Your task to perform on an android device: uninstall "PlayWell" Image 0: 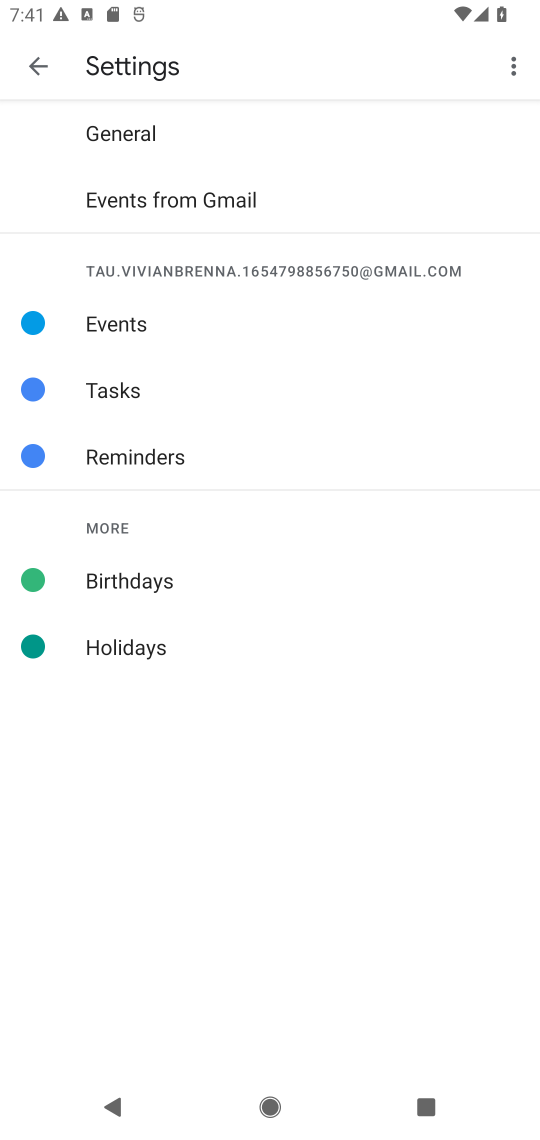
Step 0: press home button
Your task to perform on an android device: uninstall "PlayWell" Image 1: 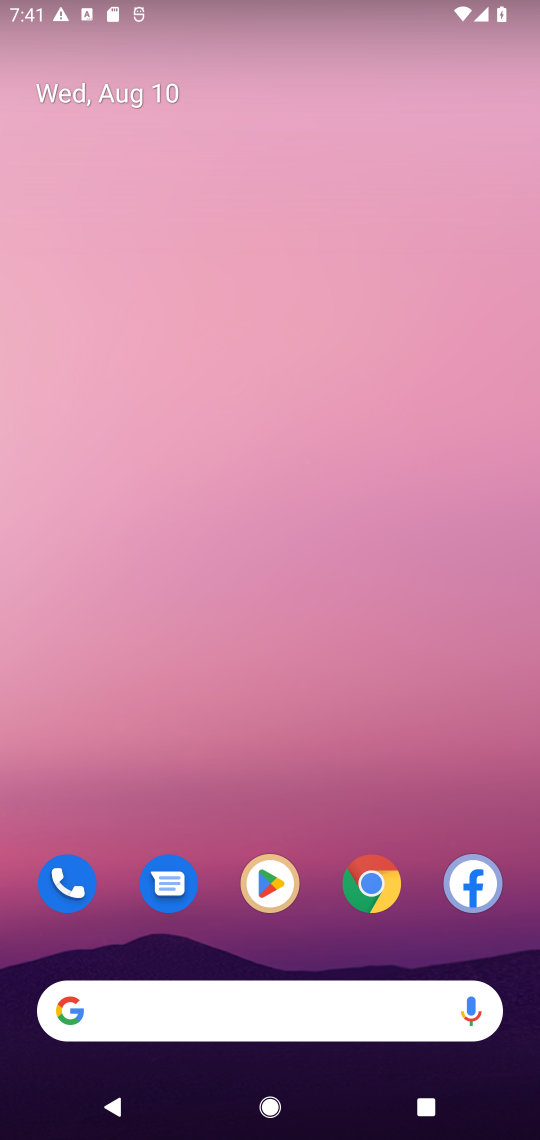
Step 1: drag from (321, 929) to (323, 46)
Your task to perform on an android device: uninstall "PlayWell" Image 2: 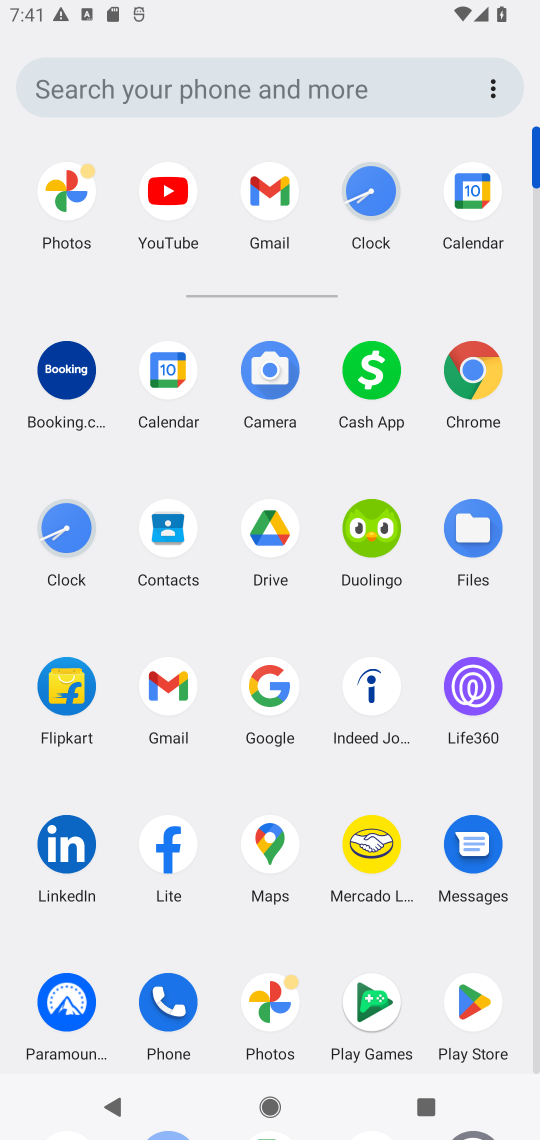
Step 2: click (467, 1008)
Your task to perform on an android device: uninstall "PlayWell" Image 3: 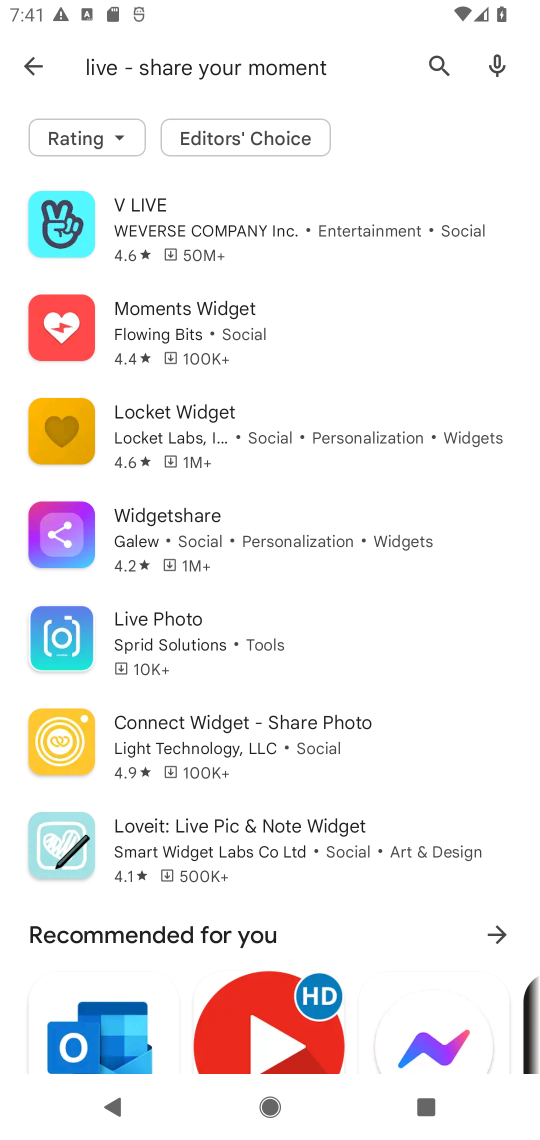
Step 3: click (439, 64)
Your task to perform on an android device: uninstall "PlayWell" Image 4: 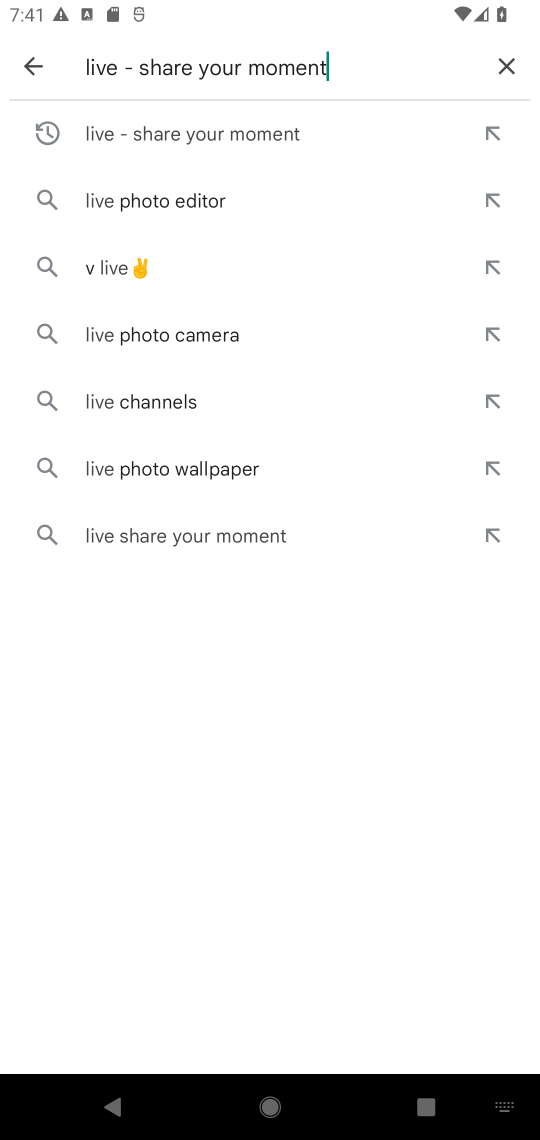
Step 4: click (508, 61)
Your task to perform on an android device: uninstall "PlayWell" Image 5: 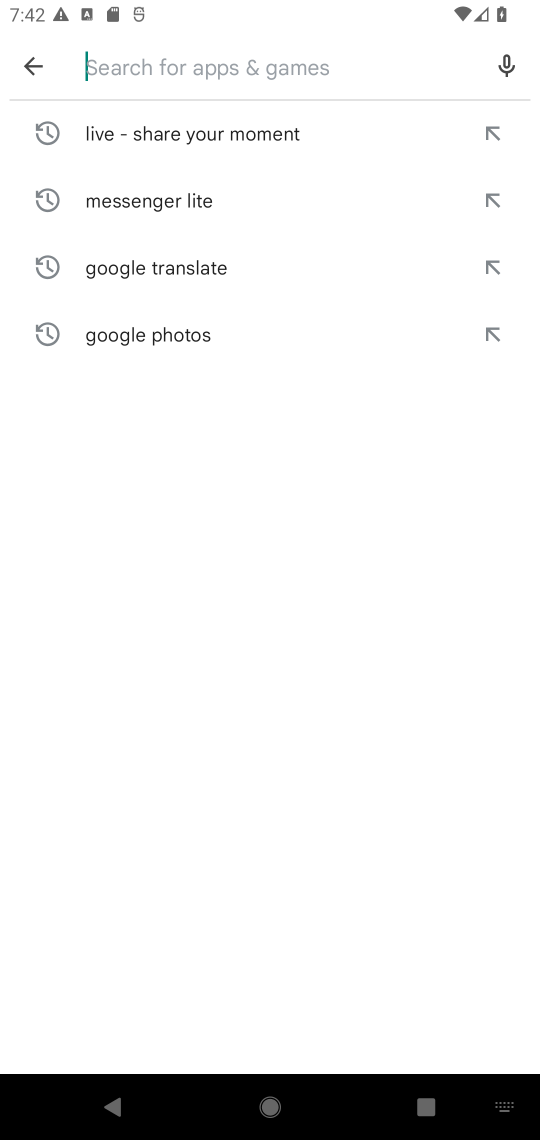
Step 5: type "PlayWell""
Your task to perform on an android device: uninstall "PlayWell" Image 6: 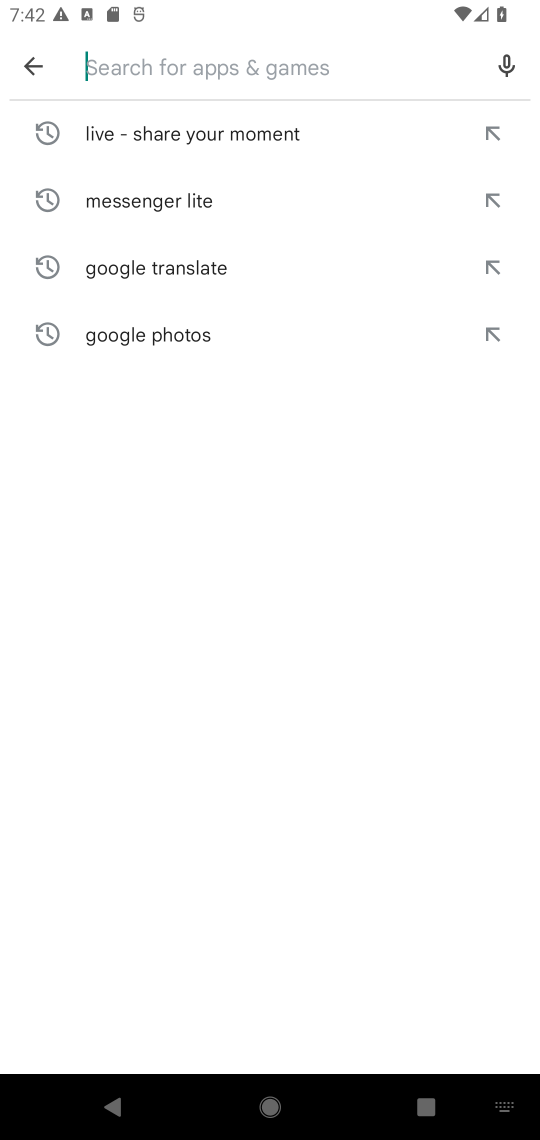
Step 6: type ""
Your task to perform on an android device: uninstall "PlayWell" Image 7: 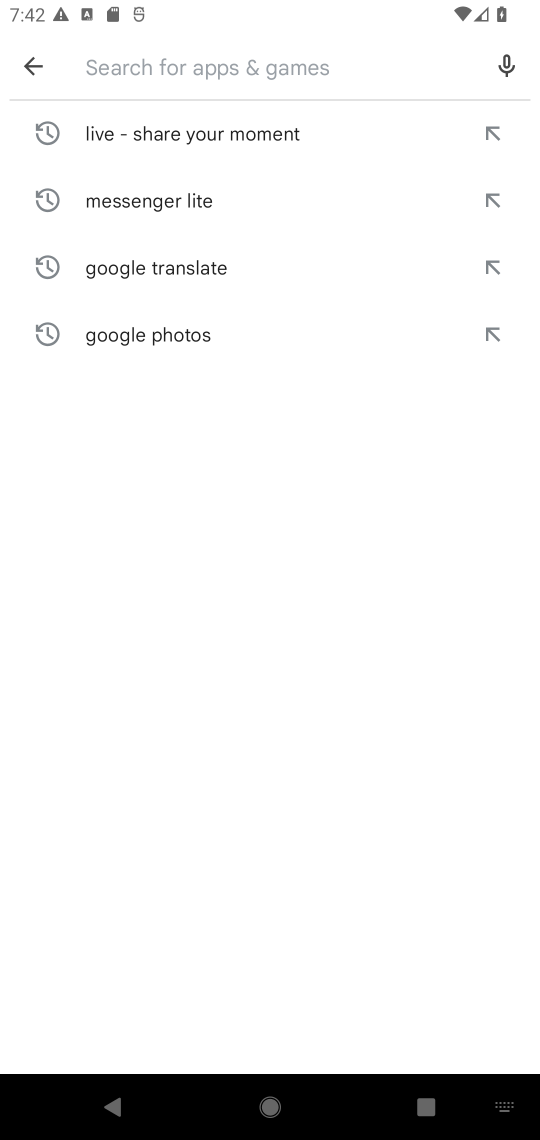
Step 7: type "PlayWell"
Your task to perform on an android device: uninstall "PlayWell" Image 8: 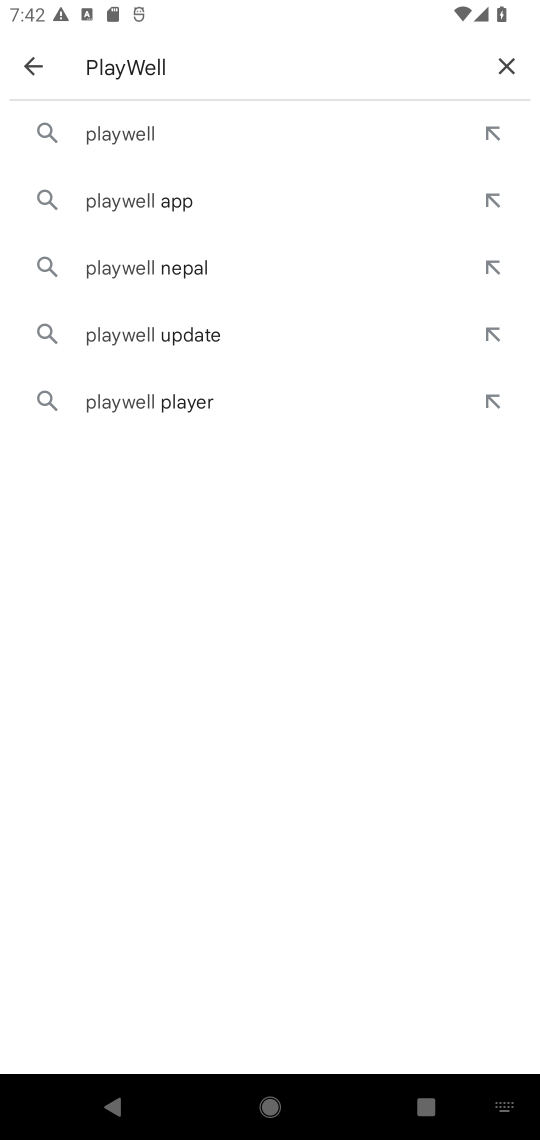
Step 8: click (120, 139)
Your task to perform on an android device: uninstall "PlayWell" Image 9: 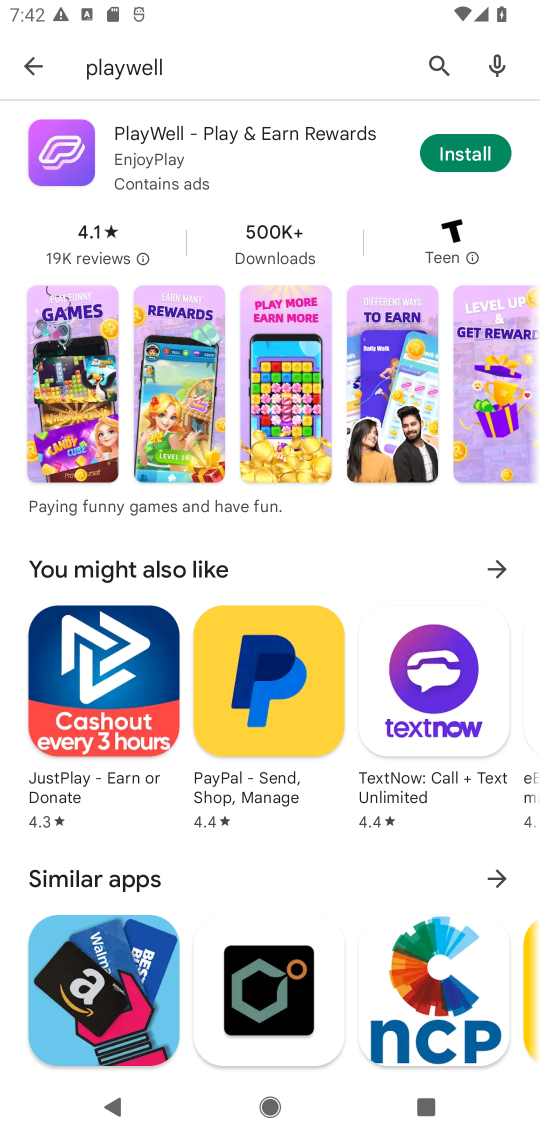
Step 9: click (233, 140)
Your task to perform on an android device: uninstall "PlayWell" Image 10: 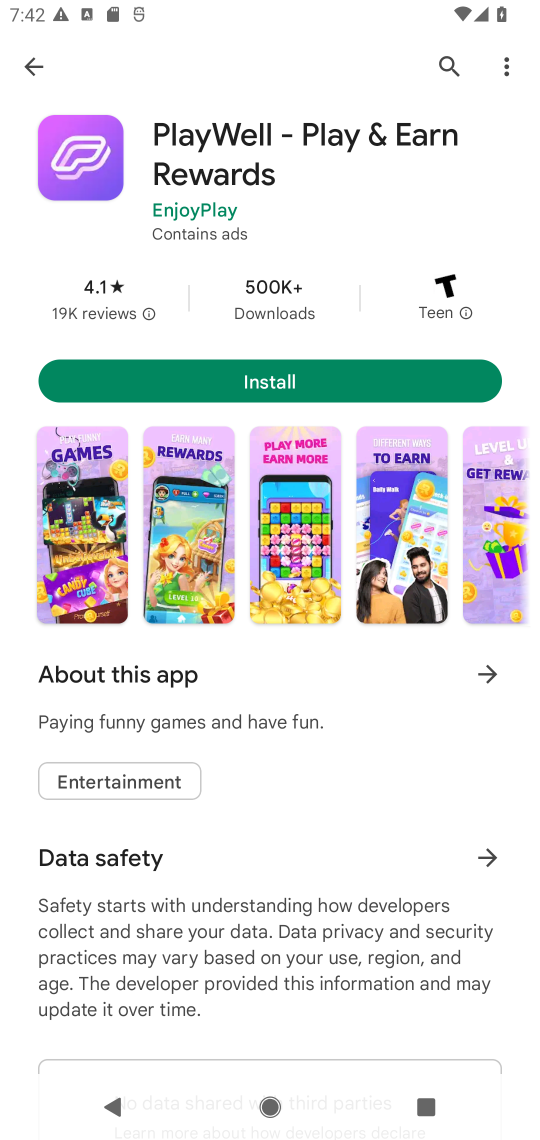
Step 10: task complete